Your task to perform on an android device: Open Google Maps and go to "Timeline" Image 0: 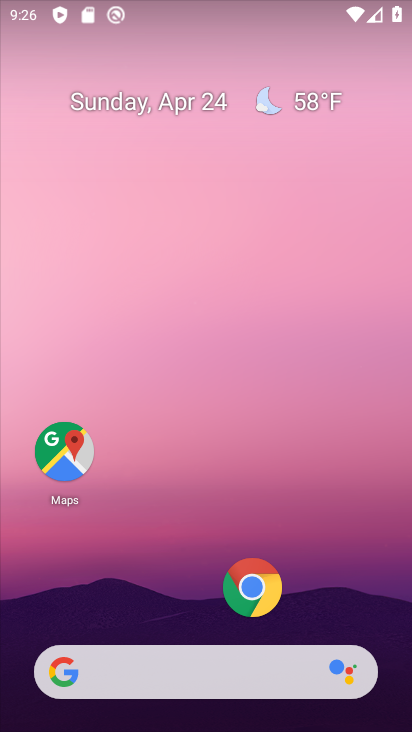
Step 0: click (65, 442)
Your task to perform on an android device: Open Google Maps and go to "Timeline" Image 1: 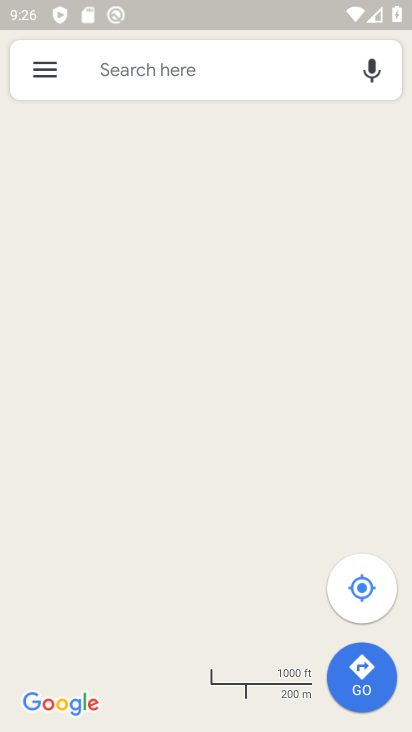
Step 1: click (48, 82)
Your task to perform on an android device: Open Google Maps and go to "Timeline" Image 2: 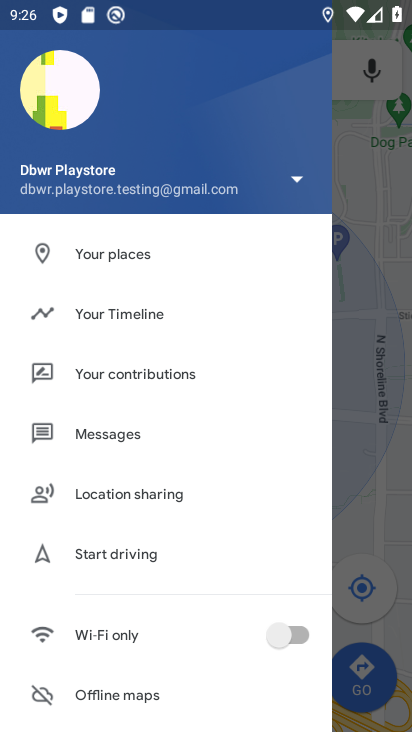
Step 2: click (140, 324)
Your task to perform on an android device: Open Google Maps and go to "Timeline" Image 3: 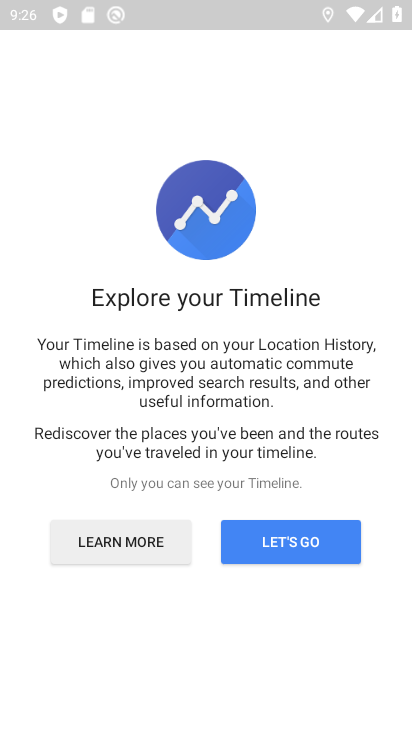
Step 3: click (304, 540)
Your task to perform on an android device: Open Google Maps and go to "Timeline" Image 4: 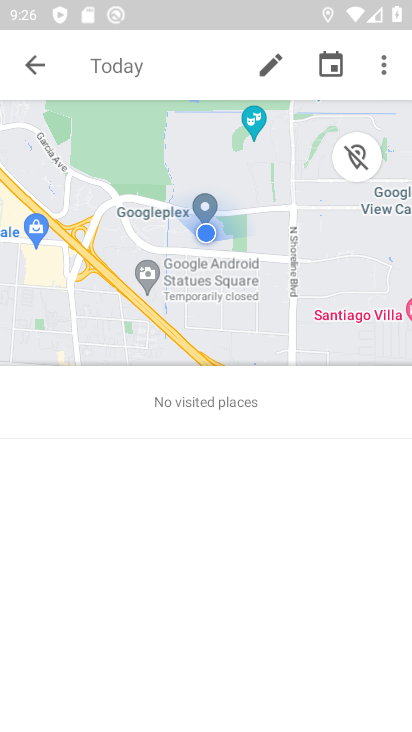
Step 4: task complete